Your task to perform on an android device: snooze an email in the gmail app Image 0: 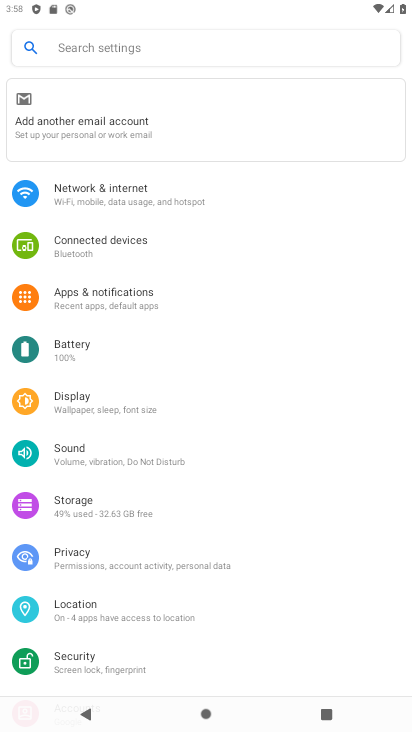
Step 0: press home button
Your task to perform on an android device: snooze an email in the gmail app Image 1: 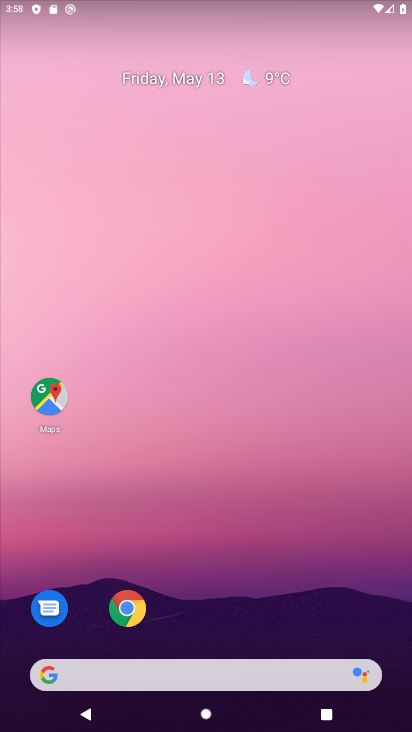
Step 1: drag from (280, 584) to (150, 82)
Your task to perform on an android device: snooze an email in the gmail app Image 2: 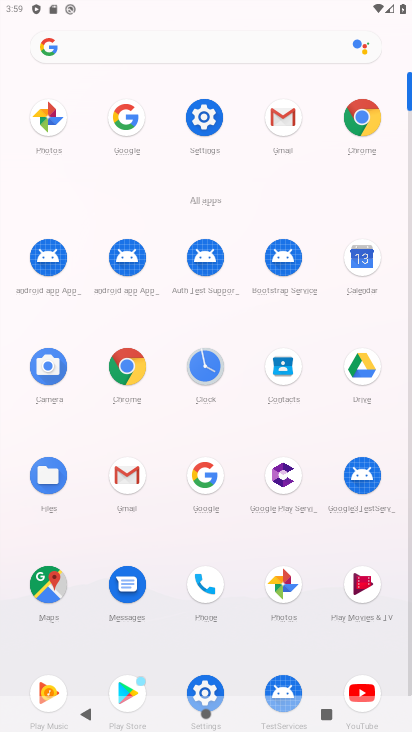
Step 2: click (294, 116)
Your task to perform on an android device: snooze an email in the gmail app Image 3: 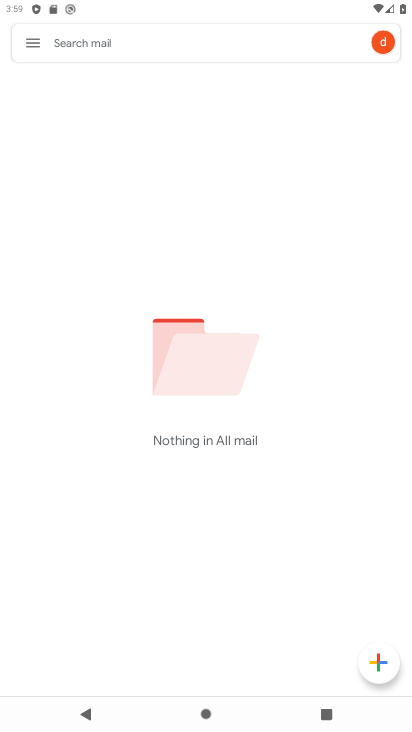
Step 3: task complete